Your task to perform on an android device: toggle location history Image 0: 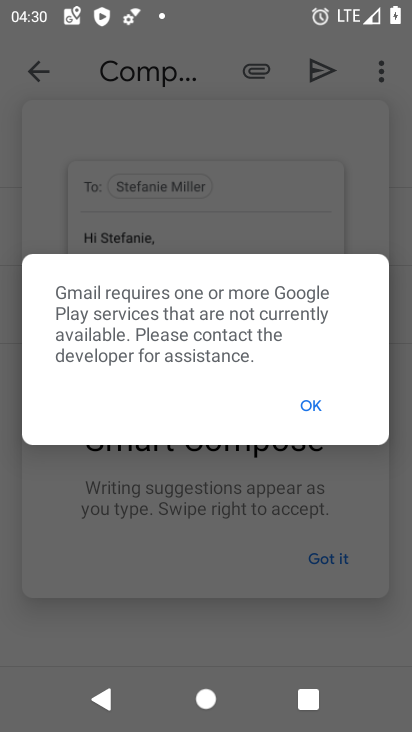
Step 0: press home button
Your task to perform on an android device: toggle location history Image 1: 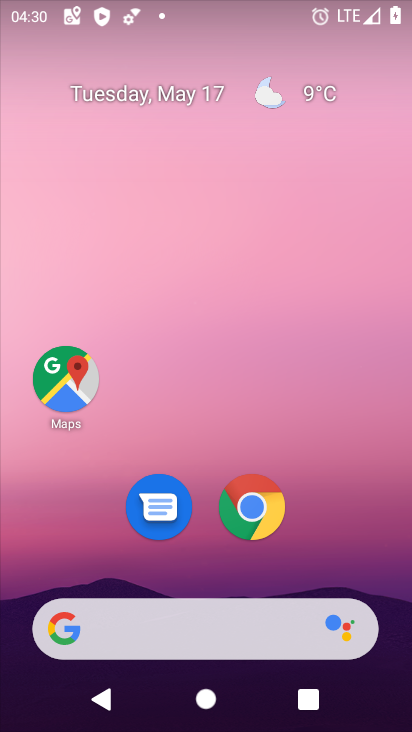
Step 1: drag from (254, 276) to (215, 93)
Your task to perform on an android device: toggle location history Image 2: 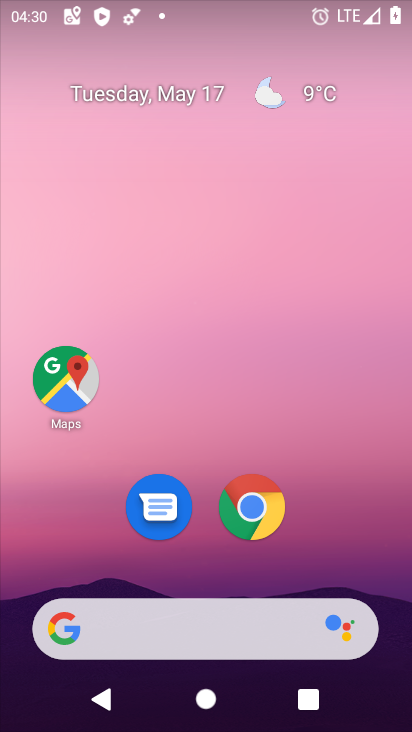
Step 2: drag from (334, 544) to (207, 81)
Your task to perform on an android device: toggle location history Image 3: 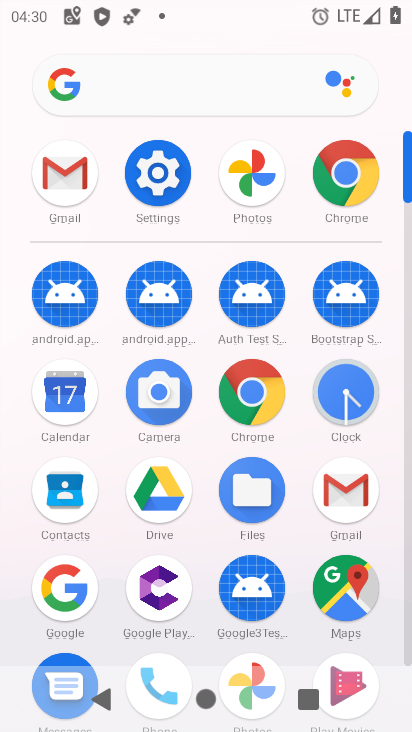
Step 3: click (170, 172)
Your task to perform on an android device: toggle location history Image 4: 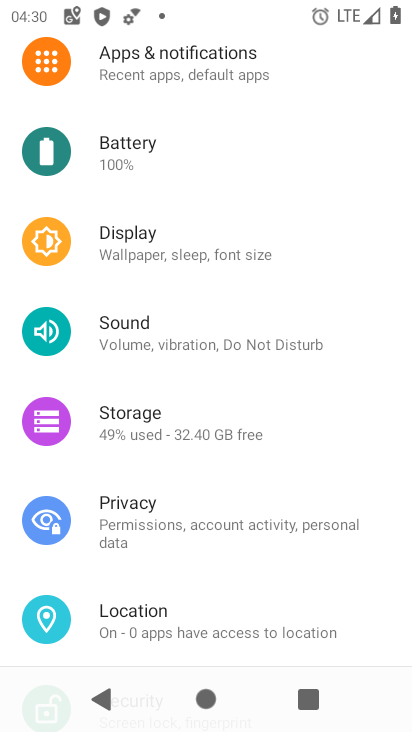
Step 4: drag from (213, 533) to (211, 306)
Your task to perform on an android device: toggle location history Image 5: 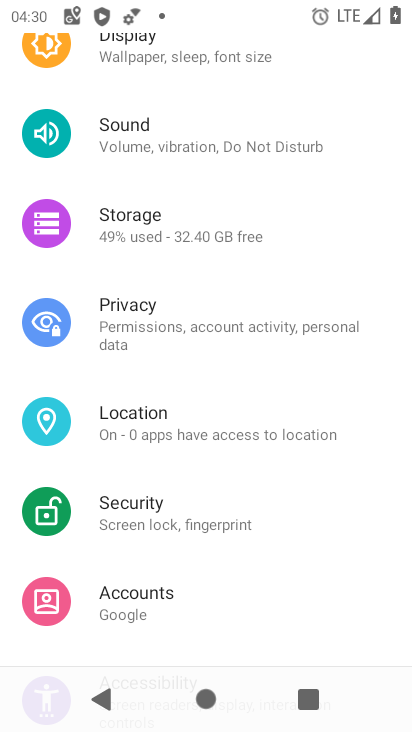
Step 5: click (164, 413)
Your task to perform on an android device: toggle location history Image 6: 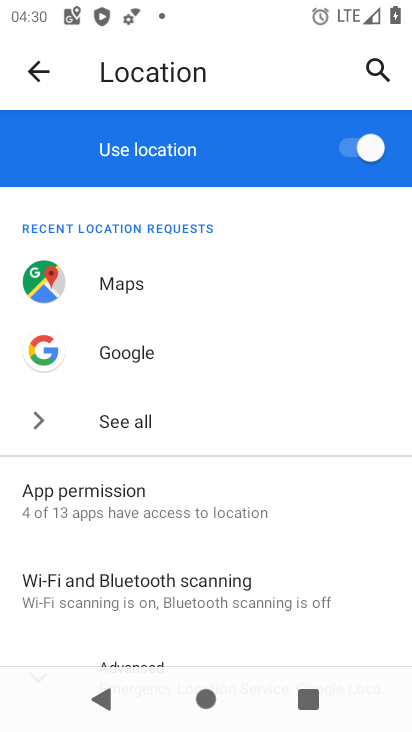
Step 6: drag from (211, 546) to (197, 182)
Your task to perform on an android device: toggle location history Image 7: 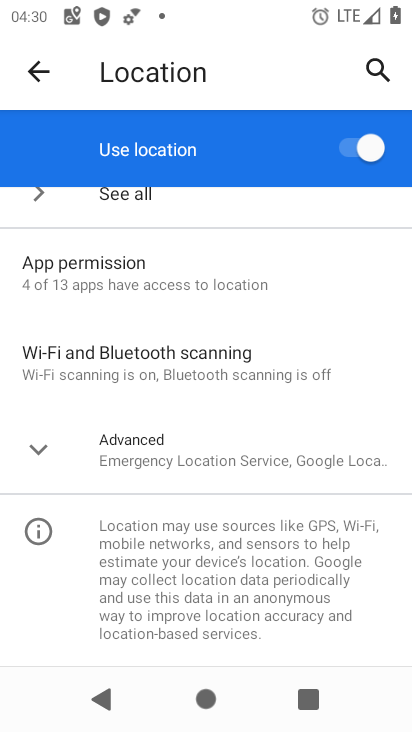
Step 7: click (173, 430)
Your task to perform on an android device: toggle location history Image 8: 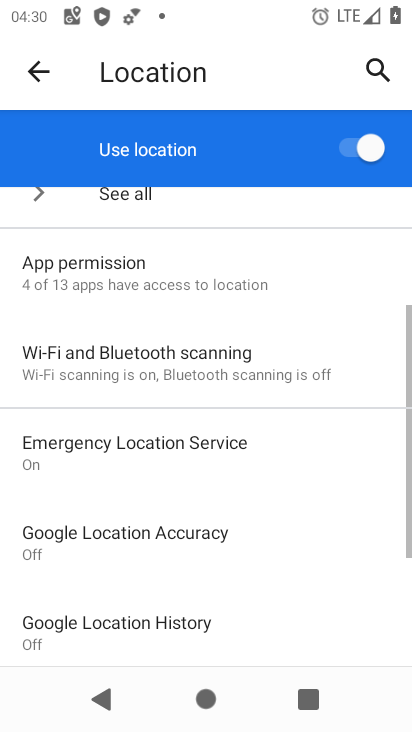
Step 8: drag from (226, 608) to (237, 304)
Your task to perform on an android device: toggle location history Image 9: 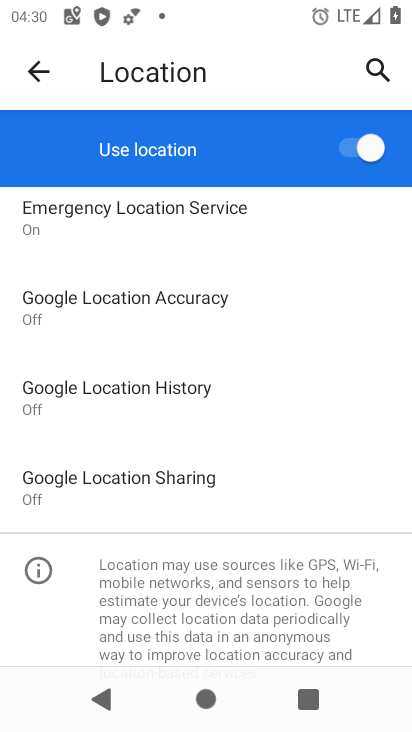
Step 9: click (94, 384)
Your task to perform on an android device: toggle location history Image 10: 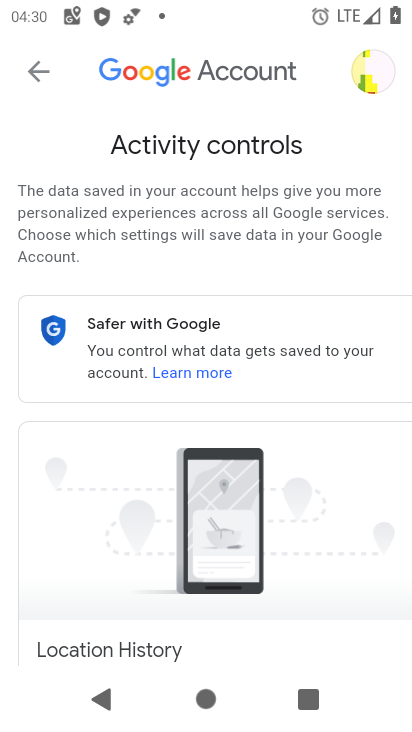
Step 10: drag from (208, 576) to (204, 91)
Your task to perform on an android device: toggle location history Image 11: 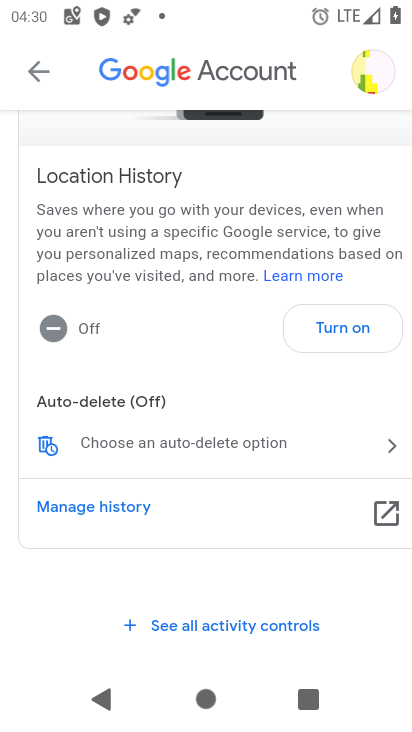
Step 11: click (349, 320)
Your task to perform on an android device: toggle location history Image 12: 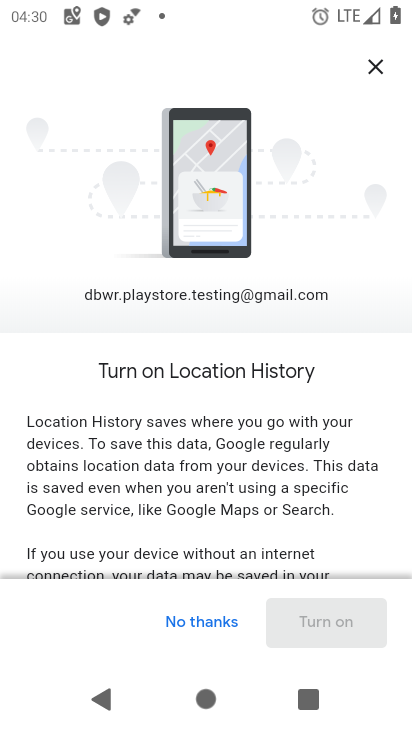
Step 12: drag from (193, 457) to (179, 60)
Your task to perform on an android device: toggle location history Image 13: 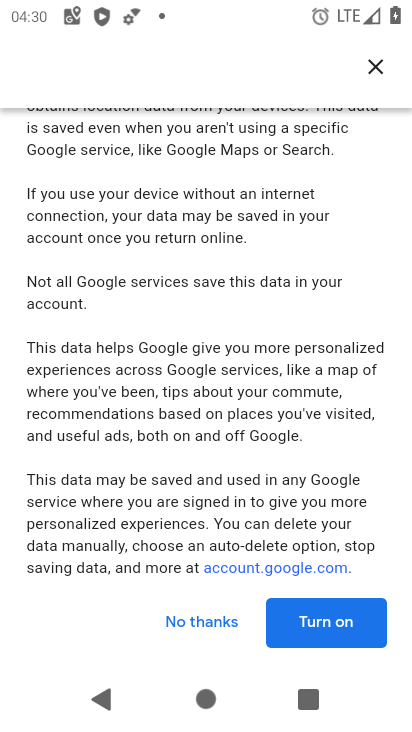
Step 13: drag from (219, 453) to (216, 86)
Your task to perform on an android device: toggle location history Image 14: 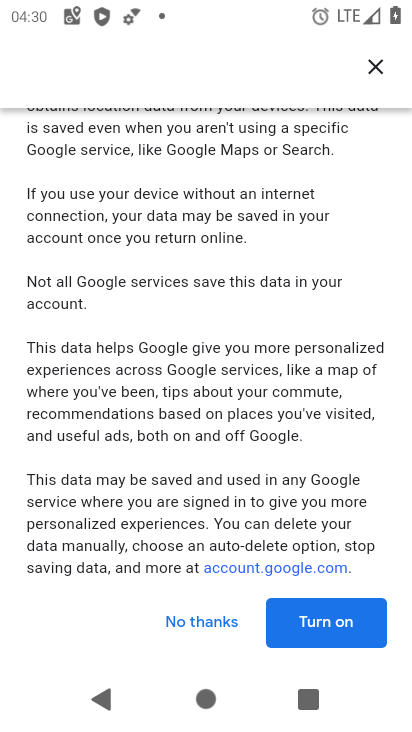
Step 14: drag from (184, 493) to (208, 150)
Your task to perform on an android device: toggle location history Image 15: 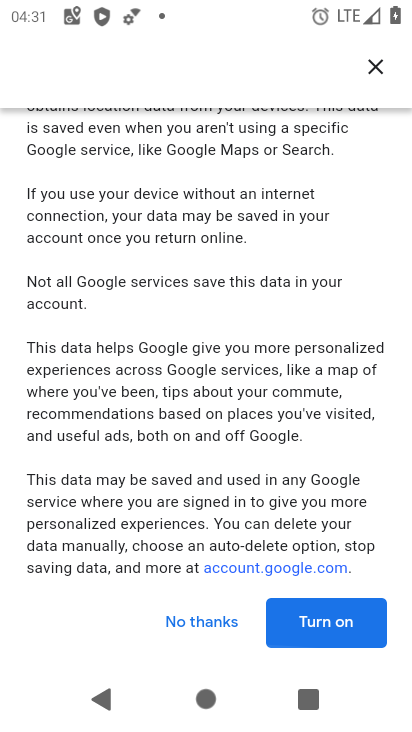
Step 15: click (333, 617)
Your task to perform on an android device: toggle location history Image 16: 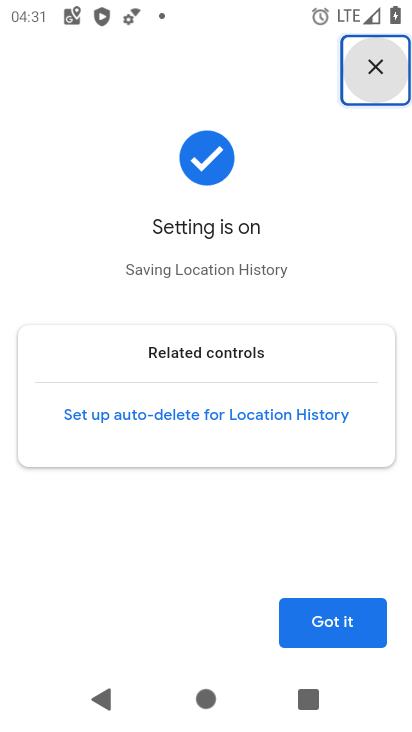
Step 16: click (331, 630)
Your task to perform on an android device: toggle location history Image 17: 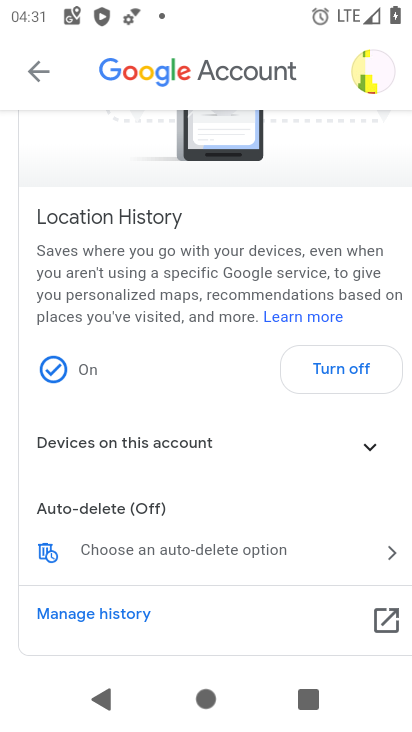
Step 17: task complete